Your task to perform on an android device: turn pop-ups on in chrome Image 0: 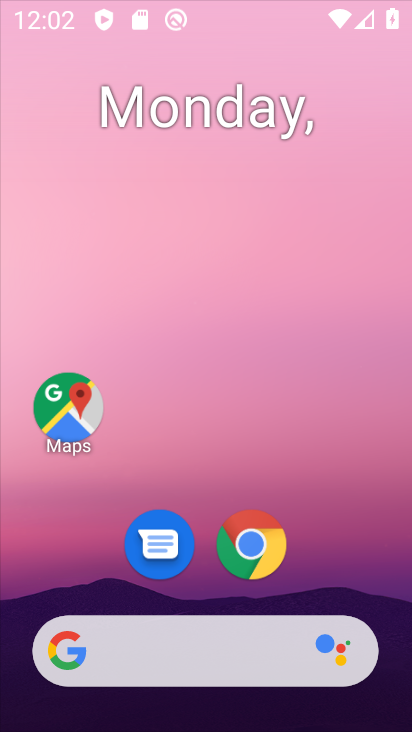
Step 0: drag from (293, 603) to (243, 5)
Your task to perform on an android device: turn pop-ups on in chrome Image 1: 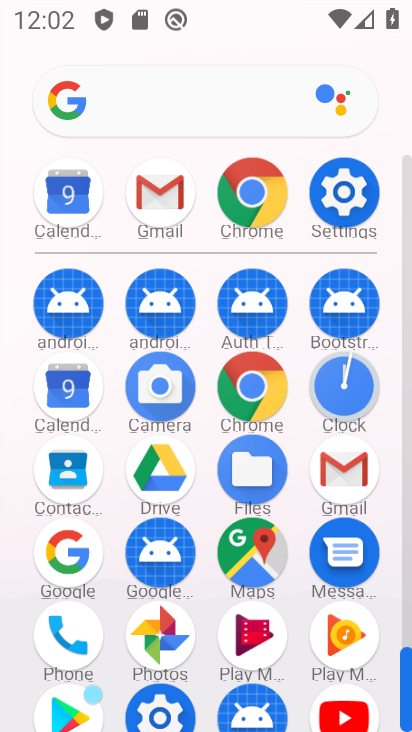
Step 1: click (269, 379)
Your task to perform on an android device: turn pop-ups on in chrome Image 2: 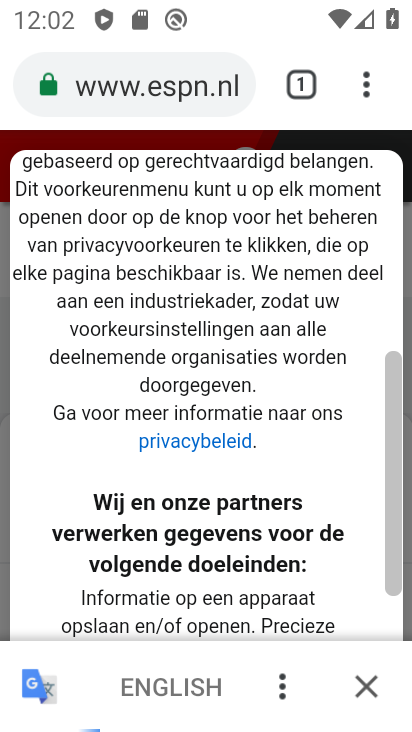
Step 2: drag from (364, 77) to (185, 608)
Your task to perform on an android device: turn pop-ups on in chrome Image 3: 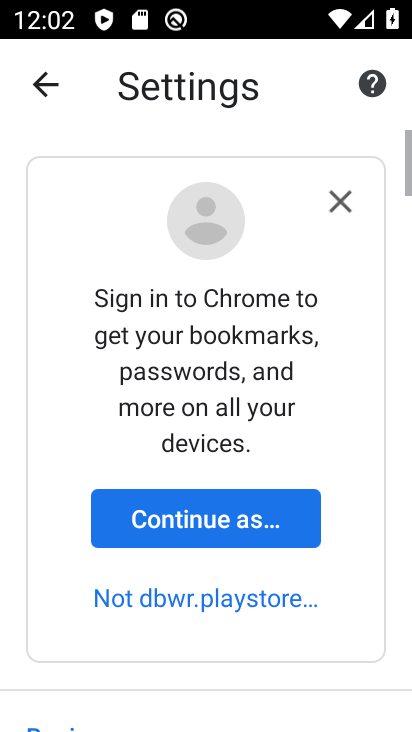
Step 3: drag from (250, 627) to (224, 69)
Your task to perform on an android device: turn pop-ups on in chrome Image 4: 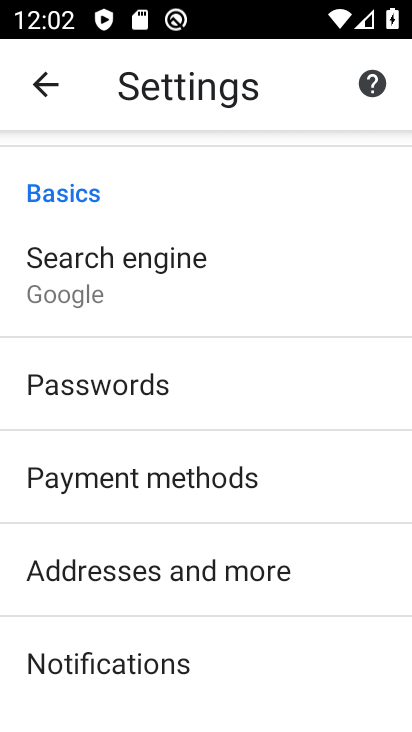
Step 4: drag from (258, 705) to (257, 164)
Your task to perform on an android device: turn pop-ups on in chrome Image 5: 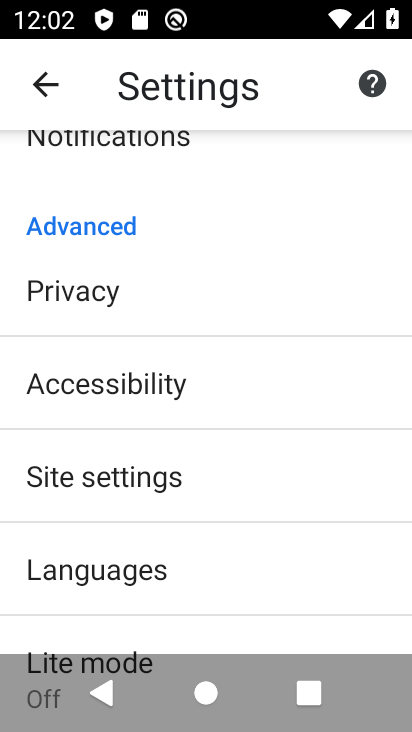
Step 5: click (163, 471)
Your task to perform on an android device: turn pop-ups on in chrome Image 6: 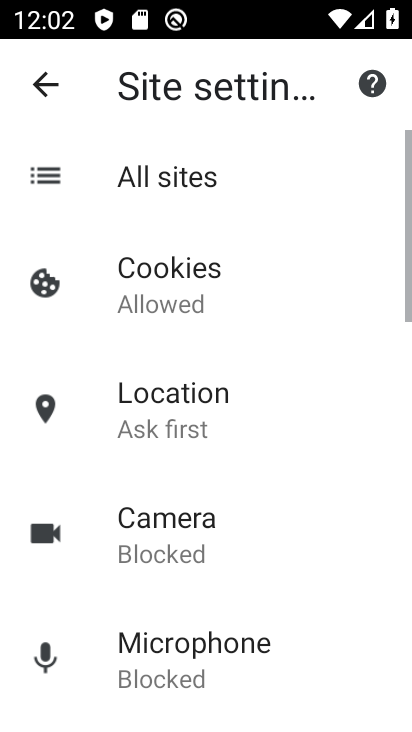
Step 6: drag from (251, 665) to (275, 108)
Your task to perform on an android device: turn pop-ups on in chrome Image 7: 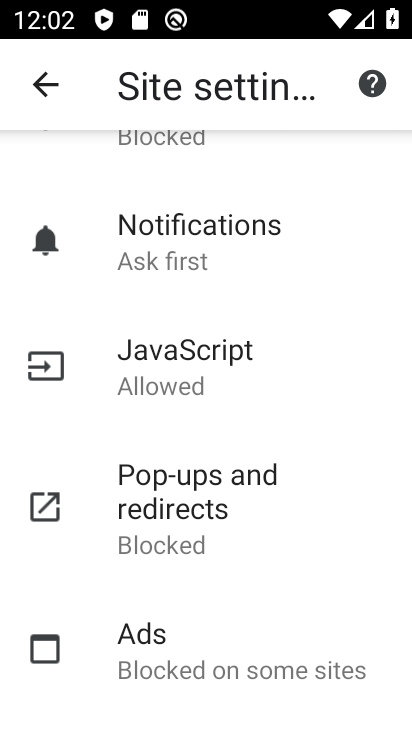
Step 7: click (233, 552)
Your task to perform on an android device: turn pop-ups on in chrome Image 8: 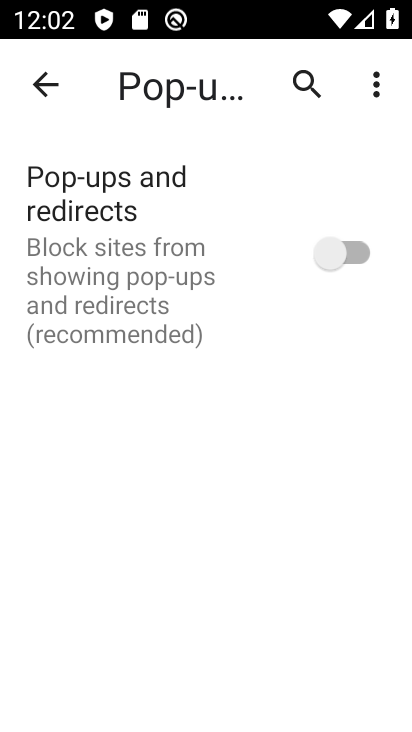
Step 8: click (361, 246)
Your task to perform on an android device: turn pop-ups on in chrome Image 9: 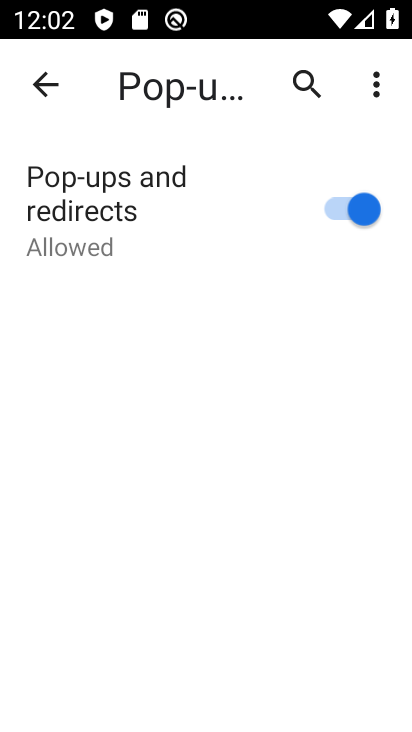
Step 9: task complete